Your task to perform on an android device: toggle show notifications on the lock screen Image 0: 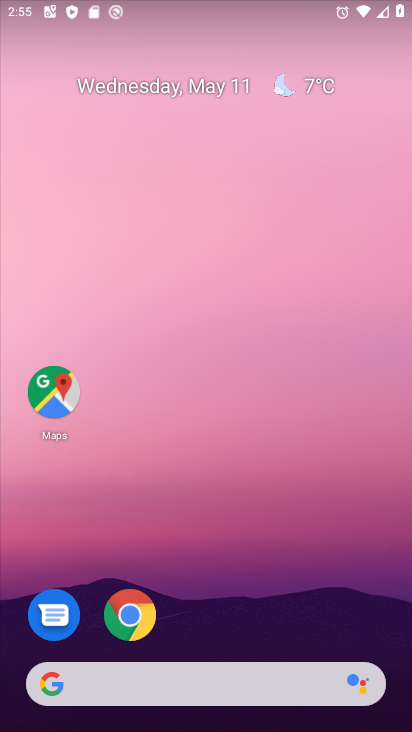
Step 0: drag from (203, 553) to (252, 102)
Your task to perform on an android device: toggle show notifications on the lock screen Image 1: 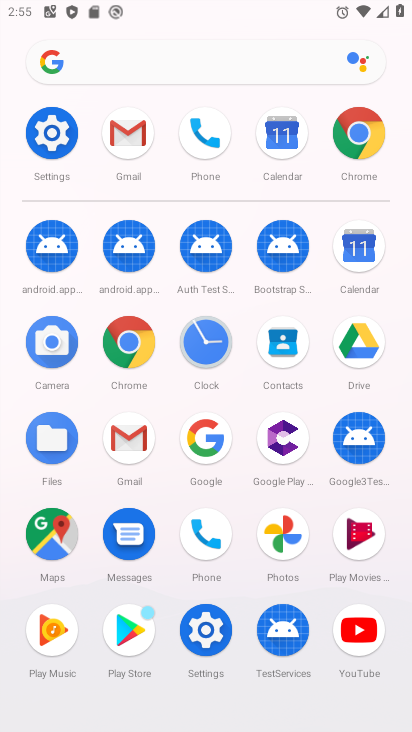
Step 1: click (57, 126)
Your task to perform on an android device: toggle show notifications on the lock screen Image 2: 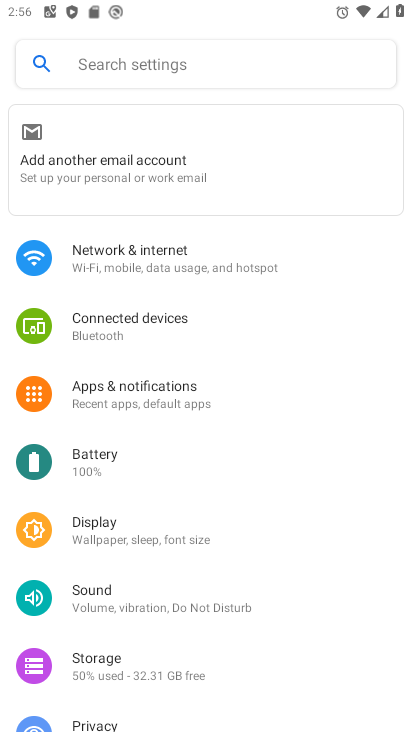
Step 2: drag from (223, 556) to (258, 405)
Your task to perform on an android device: toggle show notifications on the lock screen Image 3: 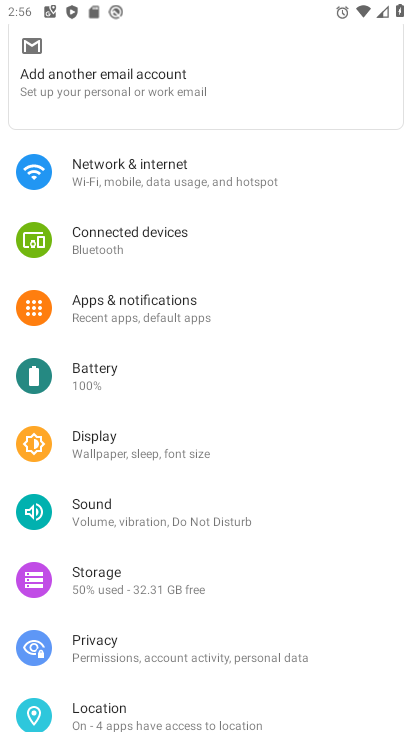
Step 3: click (170, 302)
Your task to perform on an android device: toggle show notifications on the lock screen Image 4: 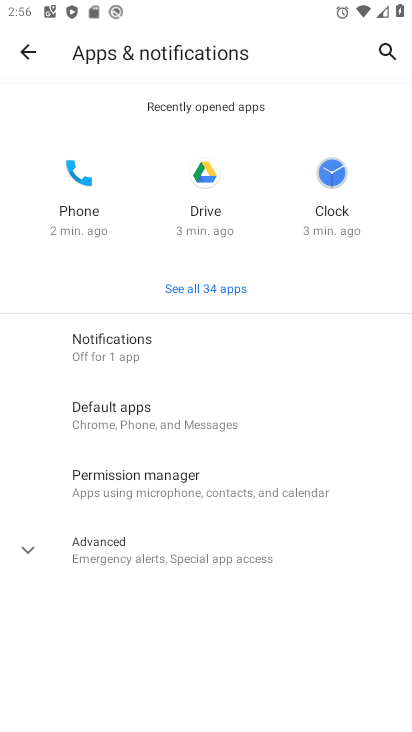
Step 4: click (145, 343)
Your task to perform on an android device: toggle show notifications on the lock screen Image 5: 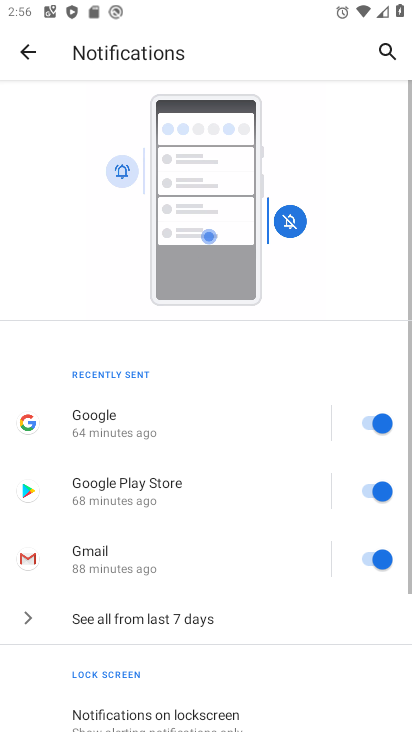
Step 5: drag from (229, 660) to (300, 197)
Your task to perform on an android device: toggle show notifications on the lock screen Image 6: 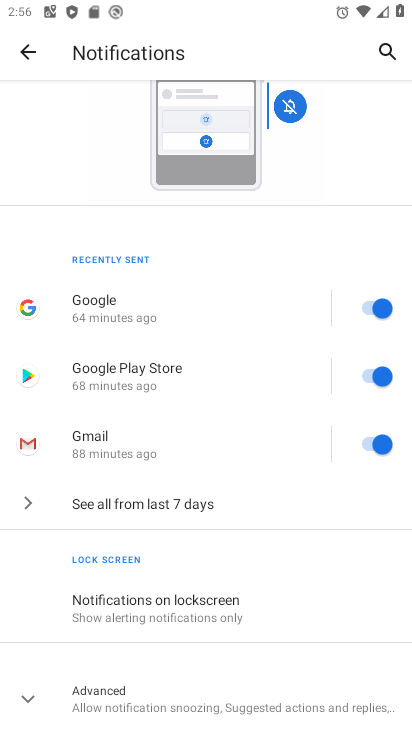
Step 6: click (196, 609)
Your task to perform on an android device: toggle show notifications on the lock screen Image 7: 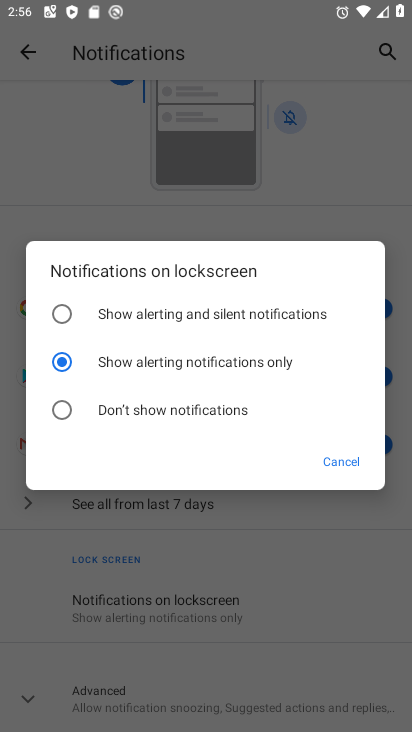
Step 7: click (221, 408)
Your task to perform on an android device: toggle show notifications on the lock screen Image 8: 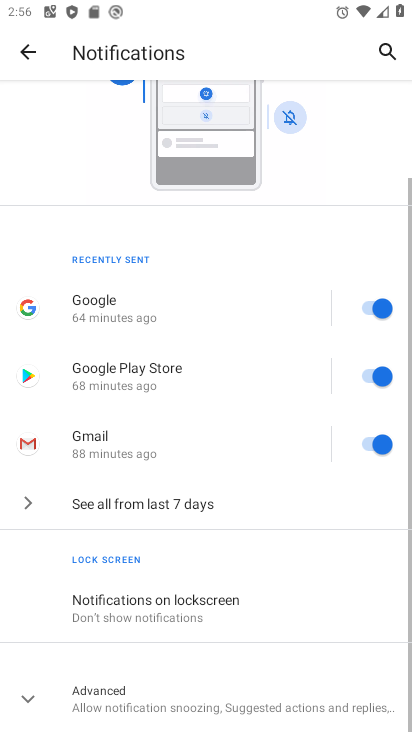
Step 8: task complete